Your task to perform on an android device: change the clock display to digital Image 0: 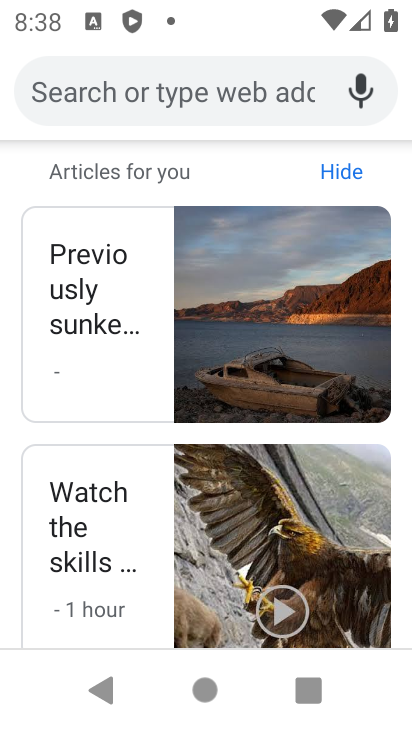
Step 0: press home button
Your task to perform on an android device: change the clock display to digital Image 1: 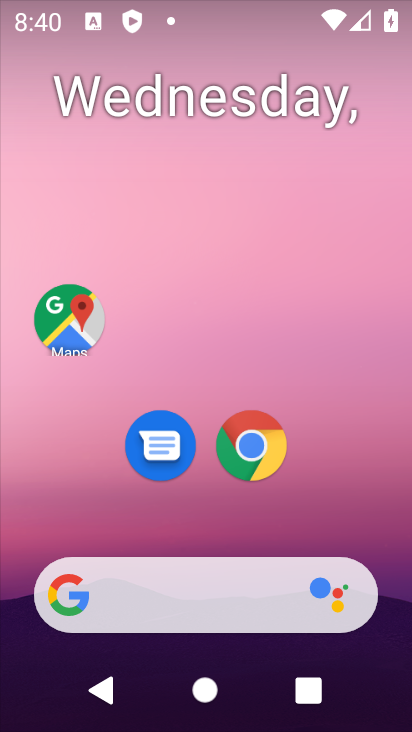
Step 1: drag from (399, 529) to (278, 57)
Your task to perform on an android device: change the clock display to digital Image 2: 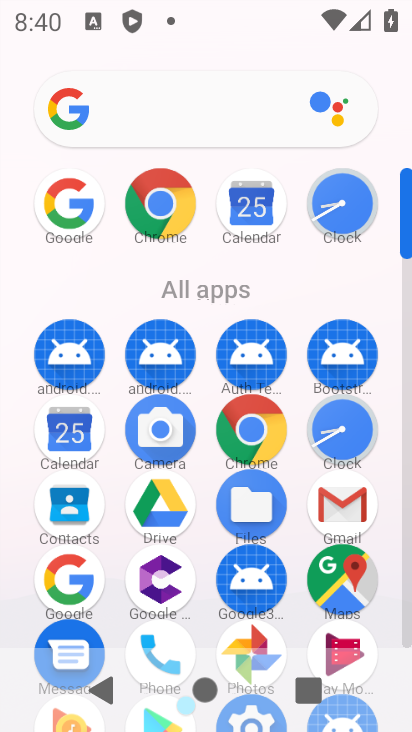
Step 2: click (348, 238)
Your task to perform on an android device: change the clock display to digital Image 3: 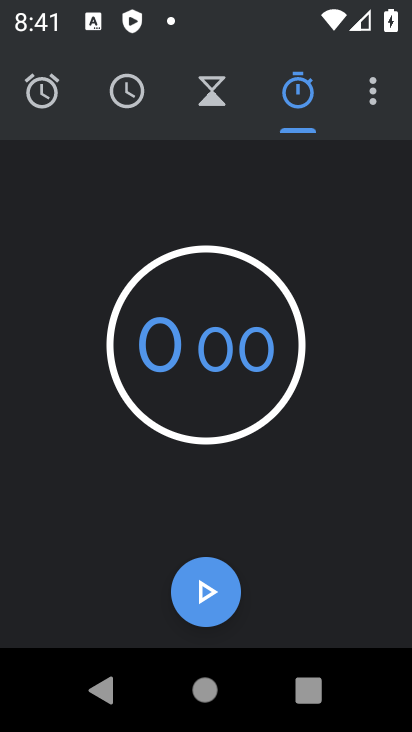
Step 3: click (358, 102)
Your task to perform on an android device: change the clock display to digital Image 4: 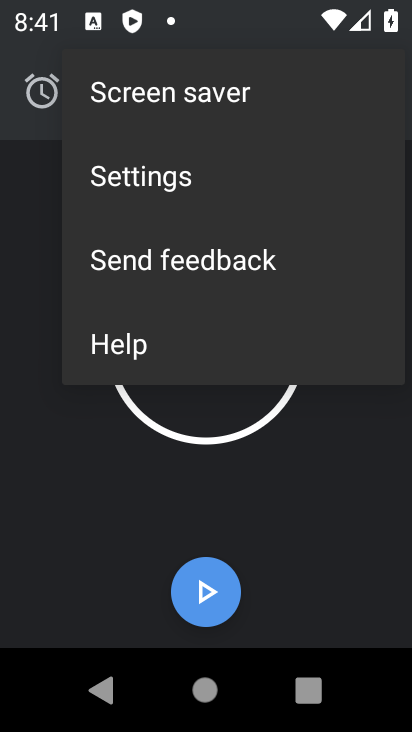
Step 4: click (167, 171)
Your task to perform on an android device: change the clock display to digital Image 5: 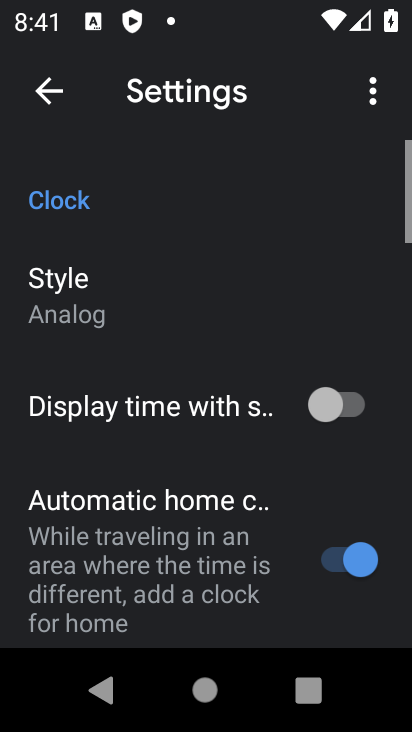
Step 5: click (60, 282)
Your task to perform on an android device: change the clock display to digital Image 6: 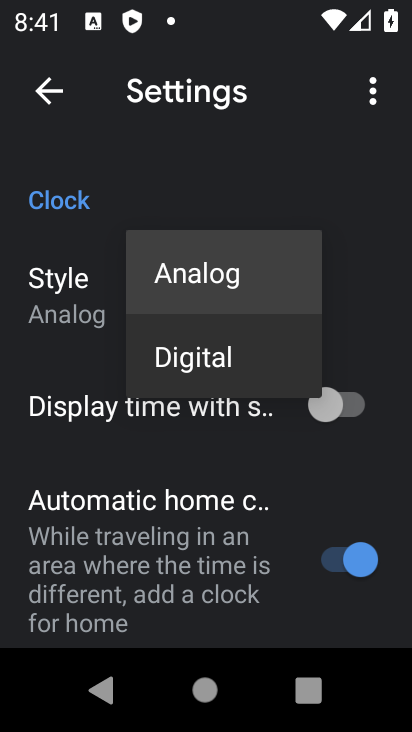
Step 6: click (193, 352)
Your task to perform on an android device: change the clock display to digital Image 7: 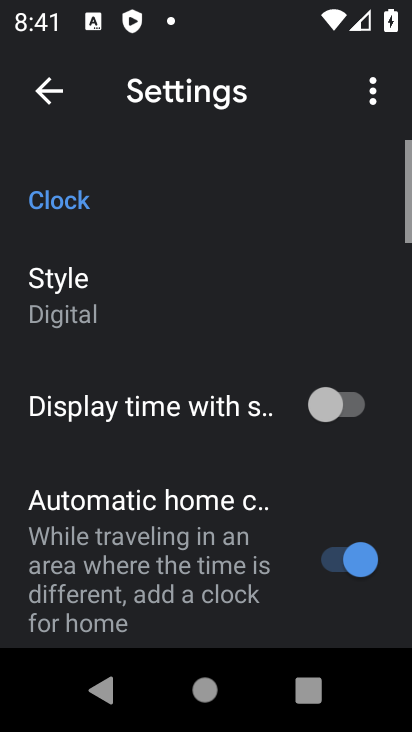
Step 7: task complete